Your task to perform on an android device: set an alarm Image 0: 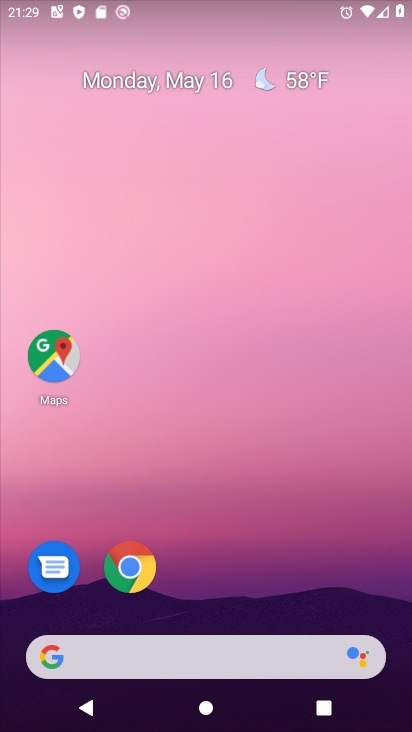
Step 0: click (265, 208)
Your task to perform on an android device: set an alarm Image 1: 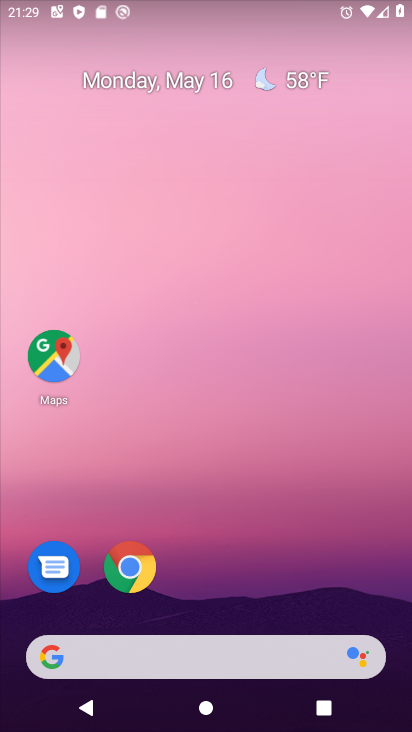
Step 1: drag from (233, 524) to (282, 178)
Your task to perform on an android device: set an alarm Image 2: 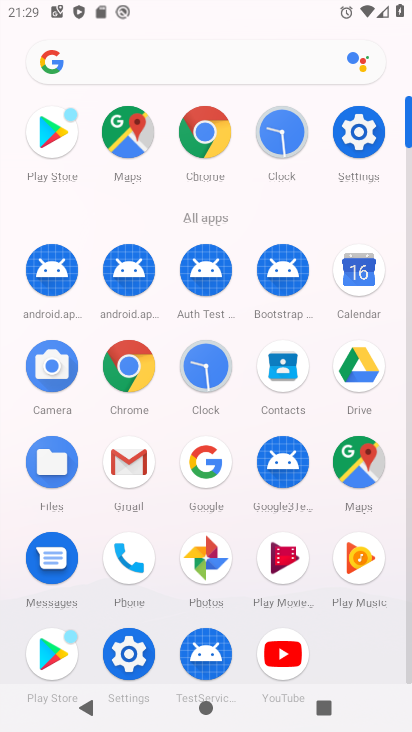
Step 2: click (217, 363)
Your task to perform on an android device: set an alarm Image 3: 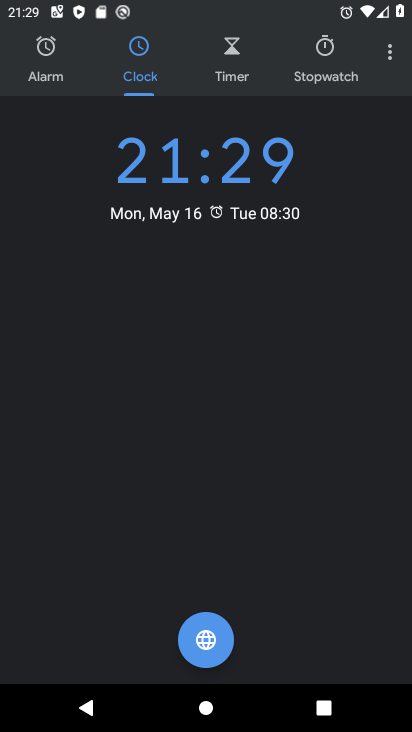
Step 3: click (49, 70)
Your task to perform on an android device: set an alarm Image 4: 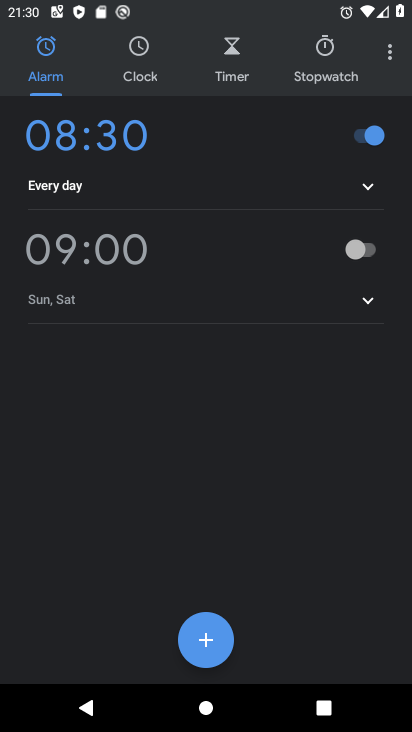
Step 4: task complete